Your task to perform on an android device: See recent photos Image 0: 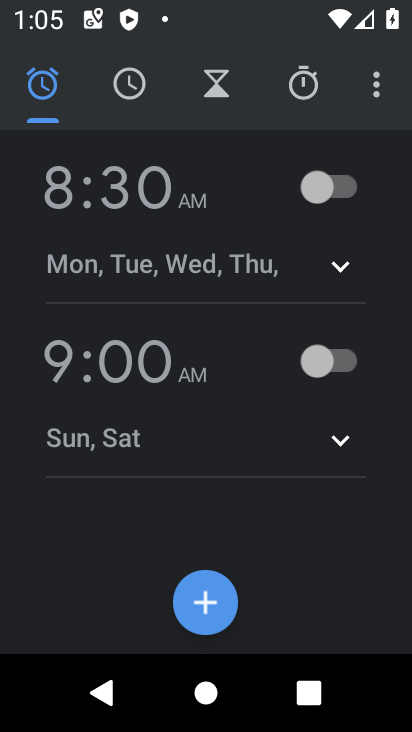
Step 0: press home button
Your task to perform on an android device: See recent photos Image 1: 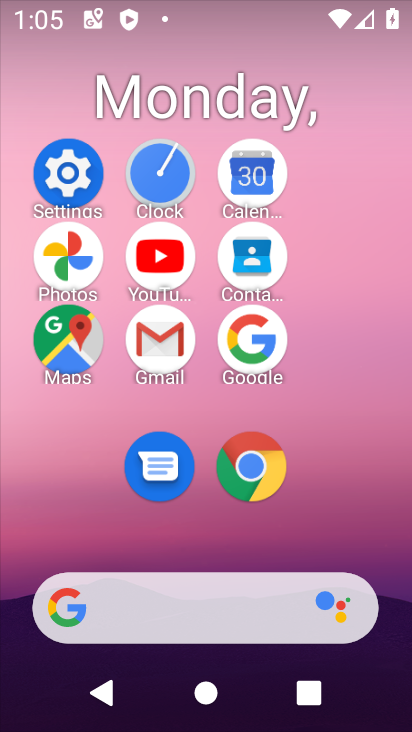
Step 1: click (73, 251)
Your task to perform on an android device: See recent photos Image 2: 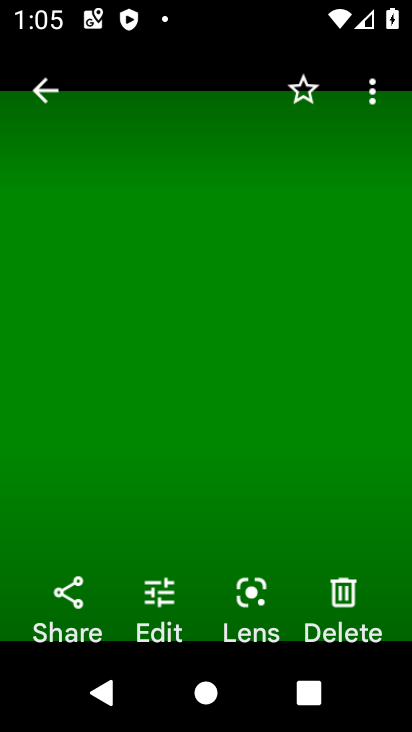
Step 2: click (39, 80)
Your task to perform on an android device: See recent photos Image 3: 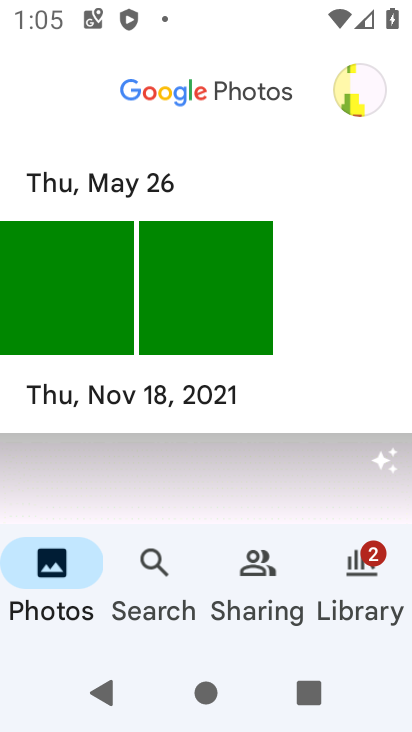
Step 3: task complete